Your task to perform on an android device: Open notification settings Image 0: 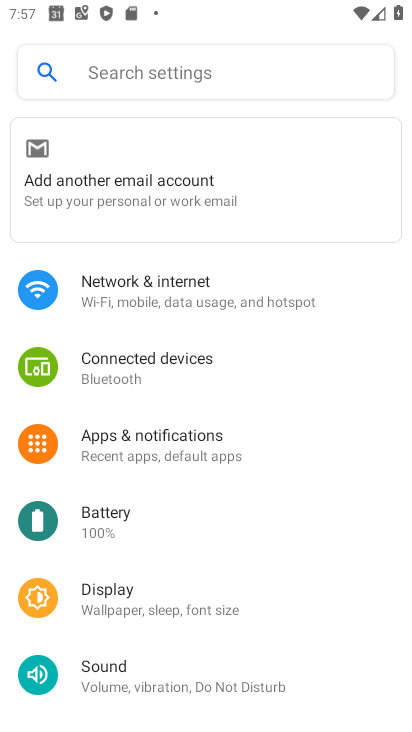
Step 0: click (185, 435)
Your task to perform on an android device: Open notification settings Image 1: 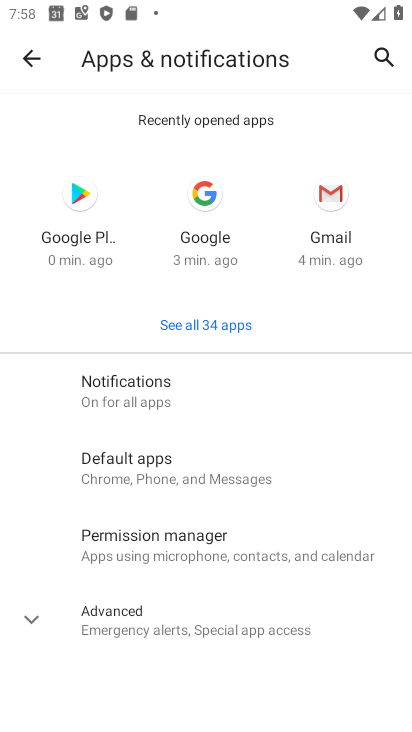
Step 1: click (229, 385)
Your task to perform on an android device: Open notification settings Image 2: 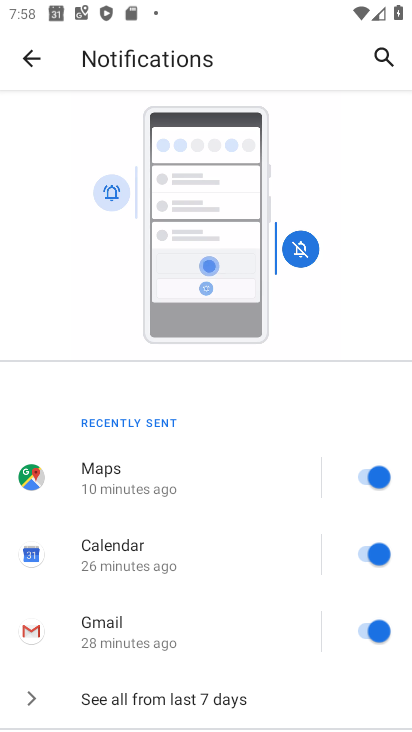
Step 2: task complete